Your task to perform on an android device: turn on showing notifications on the lock screen Image 0: 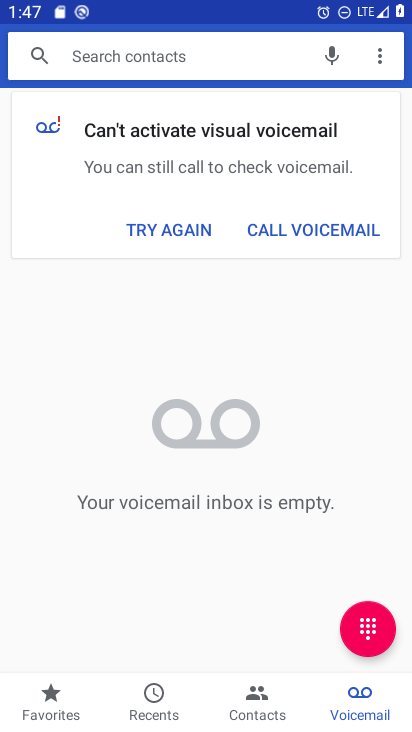
Step 0: press home button
Your task to perform on an android device: turn on showing notifications on the lock screen Image 1: 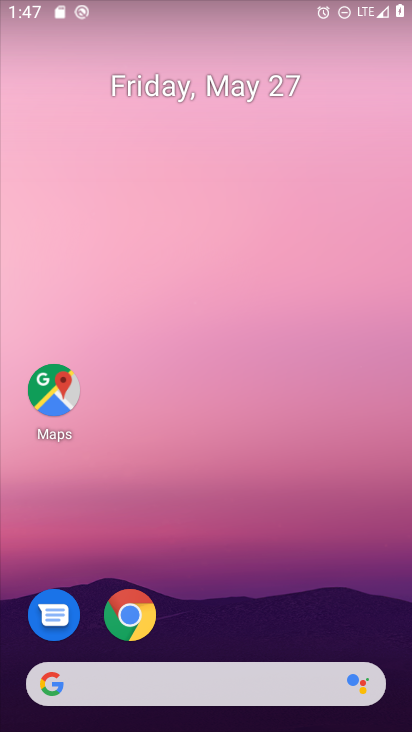
Step 1: drag from (246, 620) to (324, 12)
Your task to perform on an android device: turn on showing notifications on the lock screen Image 2: 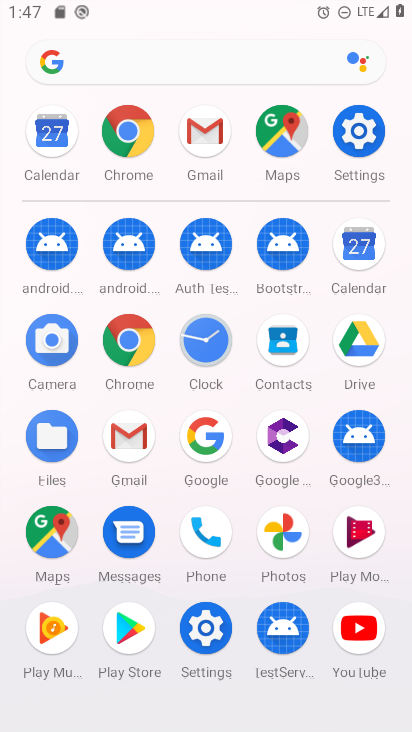
Step 2: click (366, 127)
Your task to perform on an android device: turn on showing notifications on the lock screen Image 3: 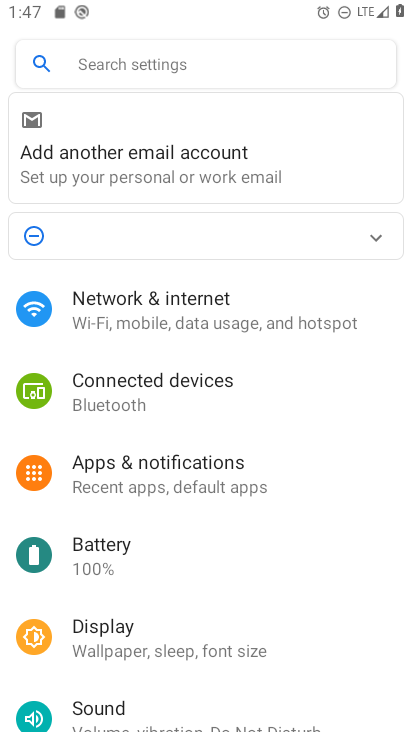
Step 3: click (181, 476)
Your task to perform on an android device: turn on showing notifications on the lock screen Image 4: 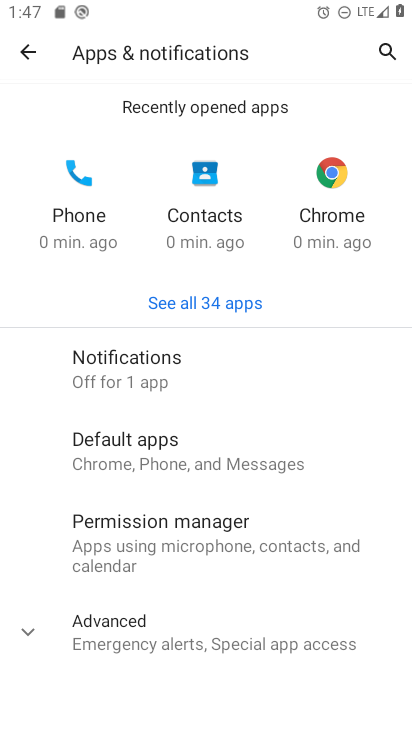
Step 4: click (175, 373)
Your task to perform on an android device: turn on showing notifications on the lock screen Image 5: 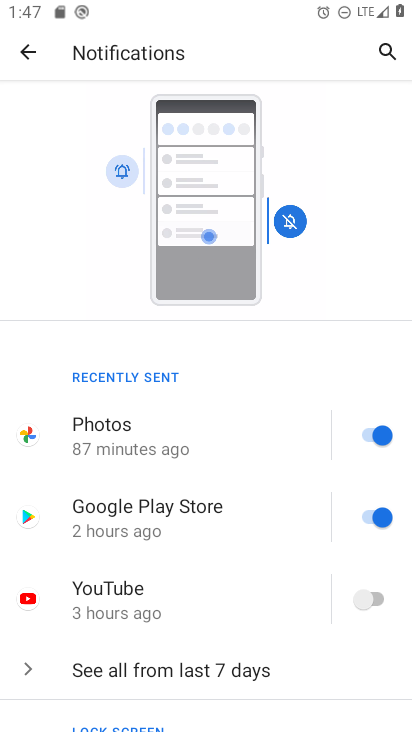
Step 5: drag from (207, 676) to (257, 103)
Your task to perform on an android device: turn on showing notifications on the lock screen Image 6: 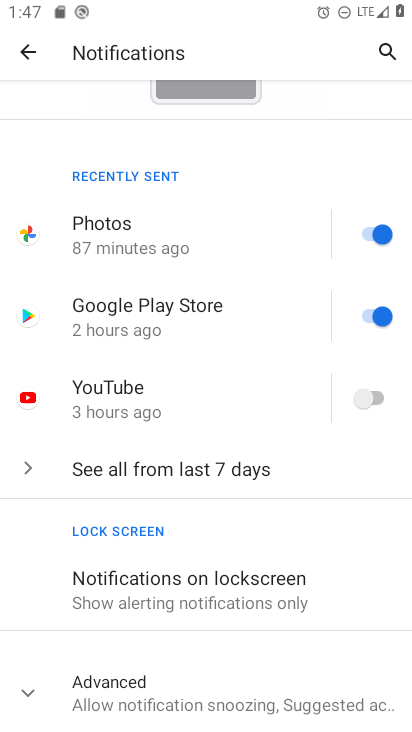
Step 6: click (211, 588)
Your task to perform on an android device: turn on showing notifications on the lock screen Image 7: 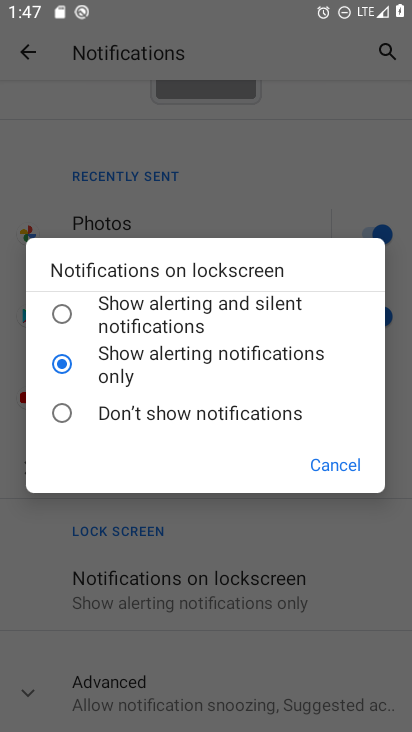
Step 7: click (61, 306)
Your task to perform on an android device: turn on showing notifications on the lock screen Image 8: 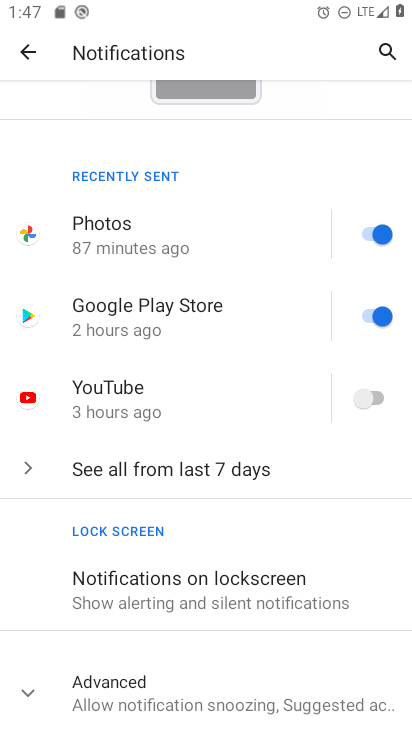
Step 8: task complete